Your task to perform on an android device: show emergency info Image 0: 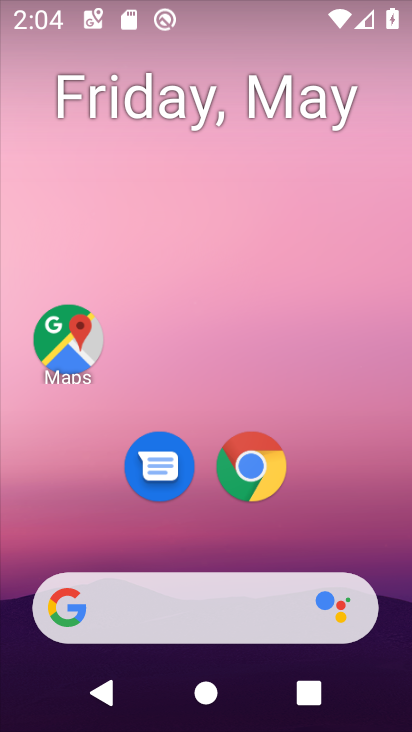
Step 0: drag from (337, 541) to (388, 62)
Your task to perform on an android device: show emergency info Image 1: 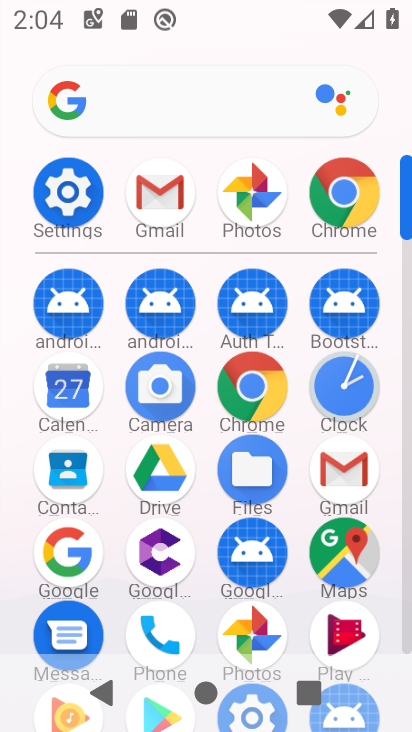
Step 1: click (58, 197)
Your task to perform on an android device: show emergency info Image 2: 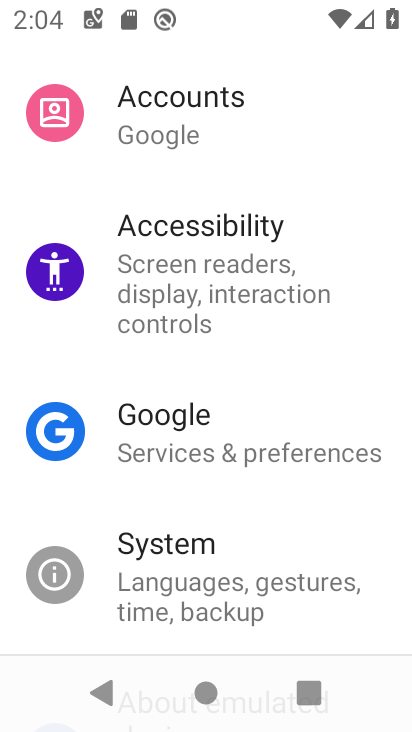
Step 2: drag from (213, 344) to (207, 698)
Your task to perform on an android device: show emergency info Image 3: 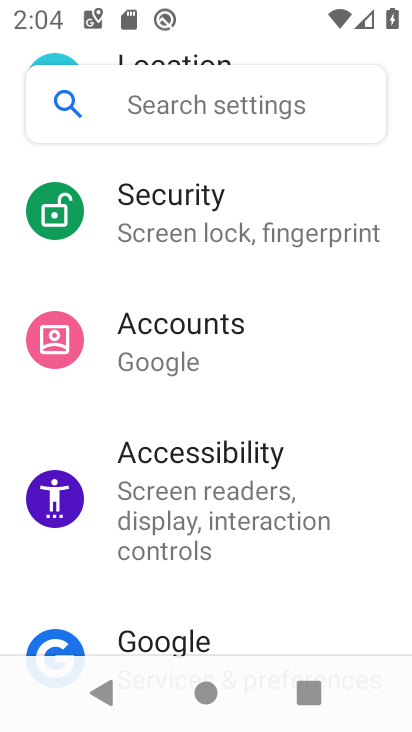
Step 3: drag from (286, 197) to (260, 656)
Your task to perform on an android device: show emergency info Image 4: 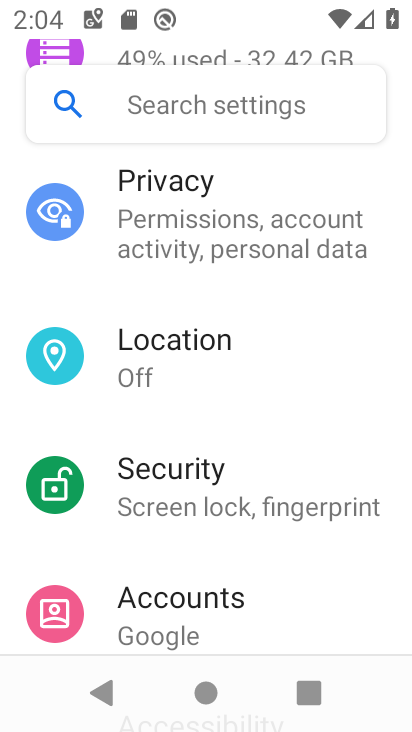
Step 4: drag from (308, 290) to (277, 696)
Your task to perform on an android device: show emergency info Image 5: 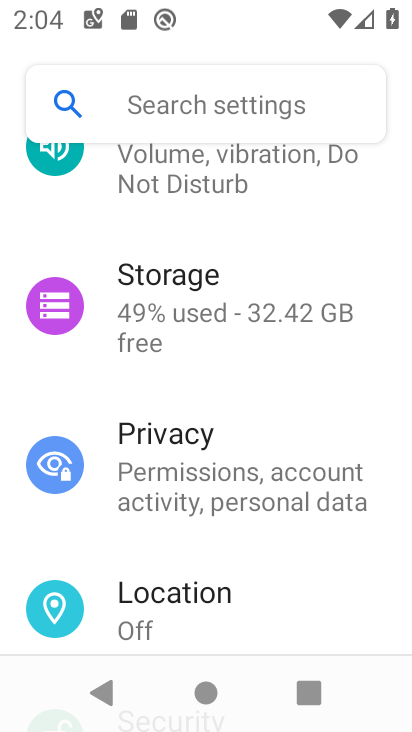
Step 5: drag from (273, 286) to (230, 713)
Your task to perform on an android device: show emergency info Image 6: 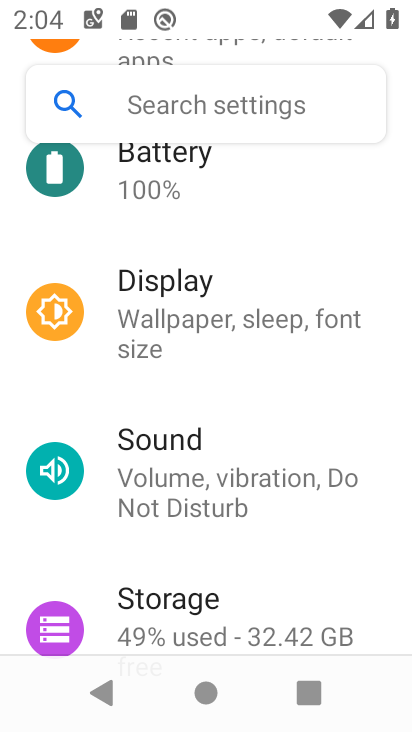
Step 6: drag from (235, 632) to (325, 119)
Your task to perform on an android device: show emergency info Image 7: 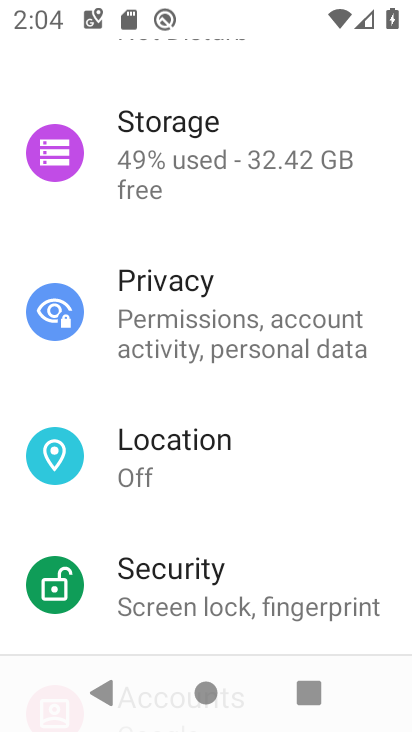
Step 7: drag from (239, 547) to (323, 80)
Your task to perform on an android device: show emergency info Image 8: 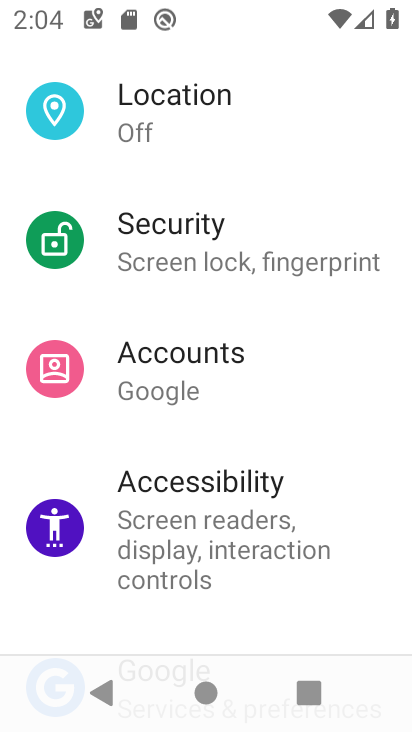
Step 8: drag from (252, 586) to (347, 69)
Your task to perform on an android device: show emergency info Image 9: 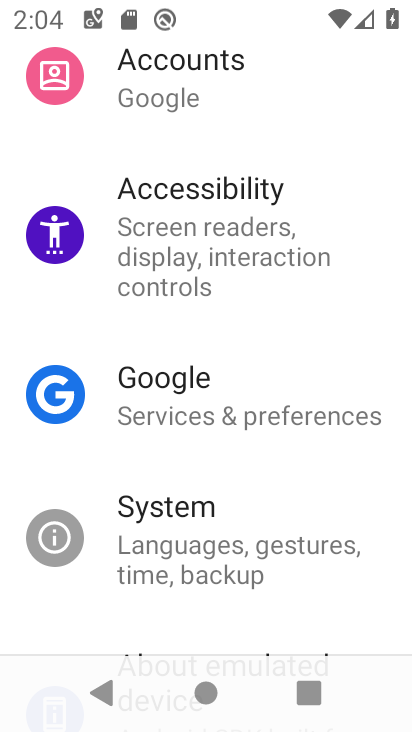
Step 9: drag from (262, 550) to (288, 142)
Your task to perform on an android device: show emergency info Image 10: 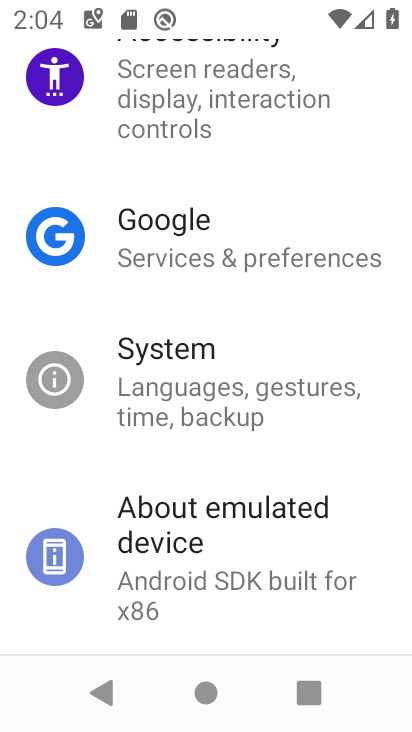
Step 10: drag from (230, 539) to (275, 246)
Your task to perform on an android device: show emergency info Image 11: 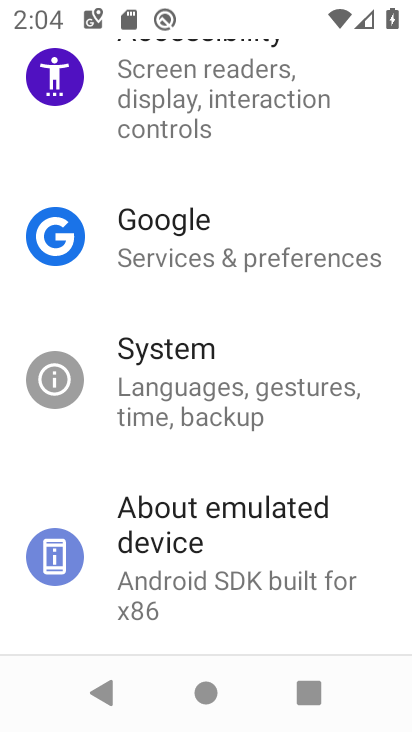
Step 11: click (195, 560)
Your task to perform on an android device: show emergency info Image 12: 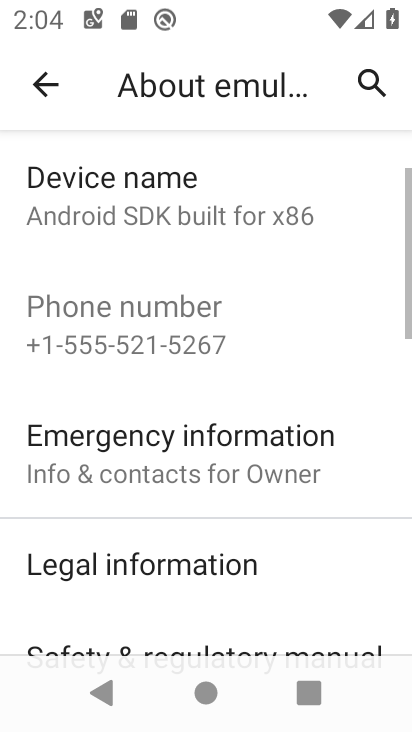
Step 12: click (154, 432)
Your task to perform on an android device: show emergency info Image 13: 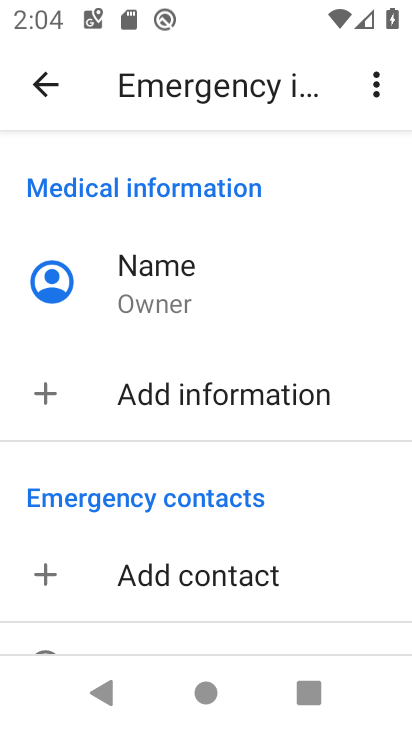
Step 13: task complete